Your task to perform on an android device: turn on data saver in the chrome app Image 0: 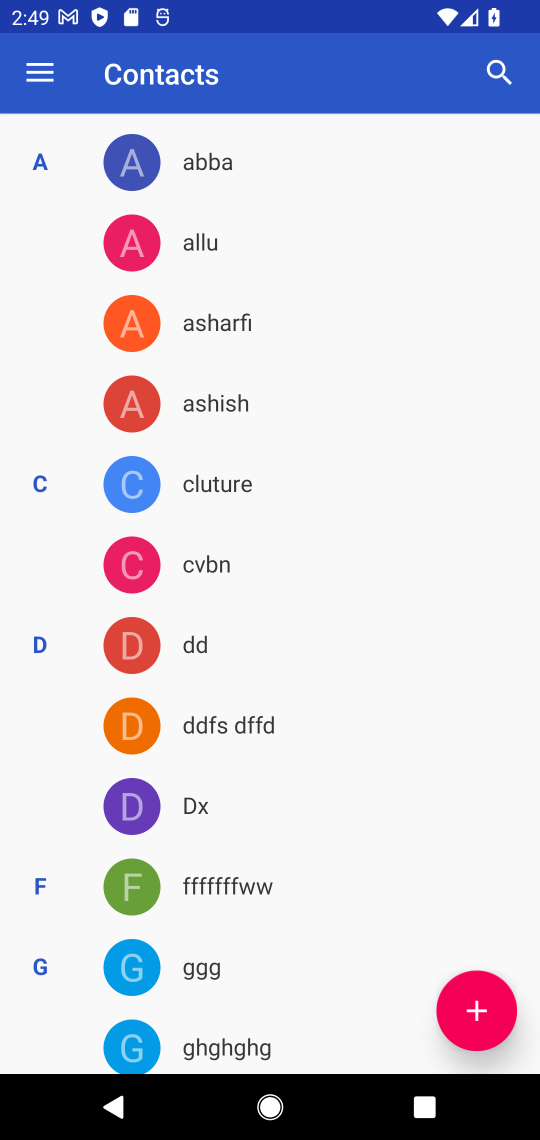
Step 0: press home button
Your task to perform on an android device: turn on data saver in the chrome app Image 1: 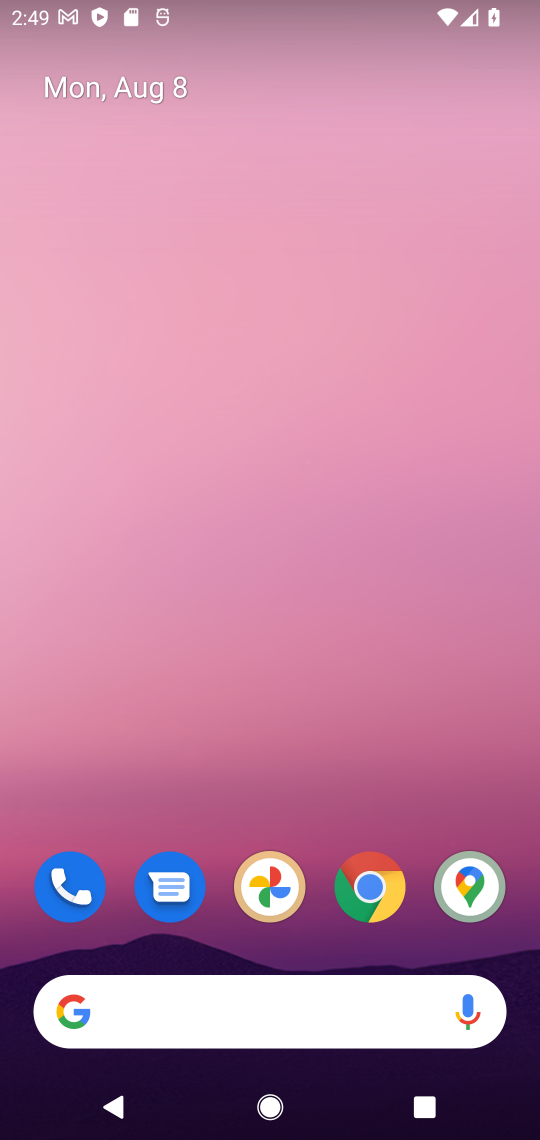
Step 1: click (380, 894)
Your task to perform on an android device: turn on data saver in the chrome app Image 2: 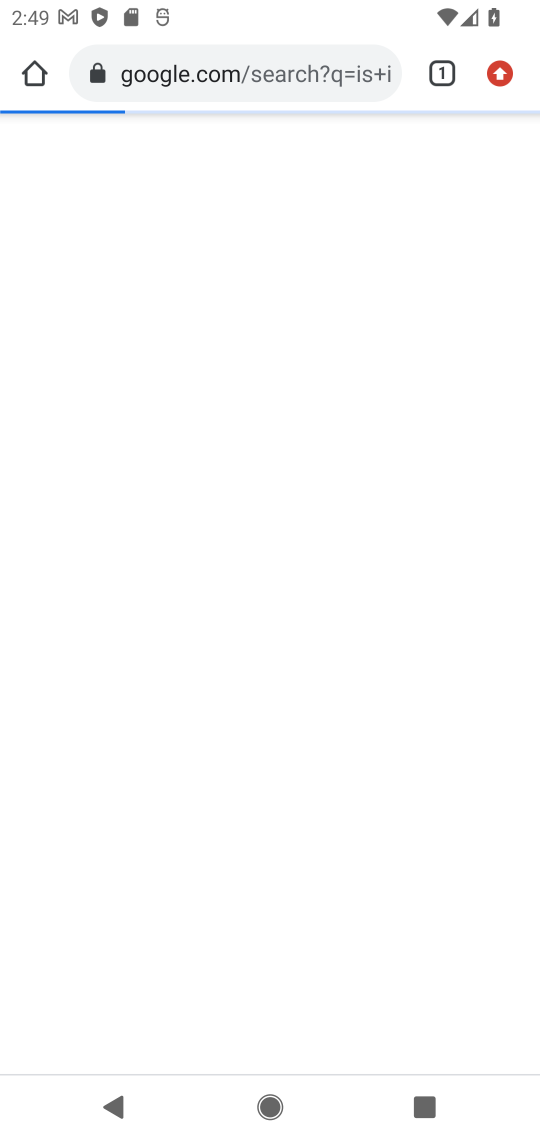
Step 2: click (496, 74)
Your task to perform on an android device: turn on data saver in the chrome app Image 3: 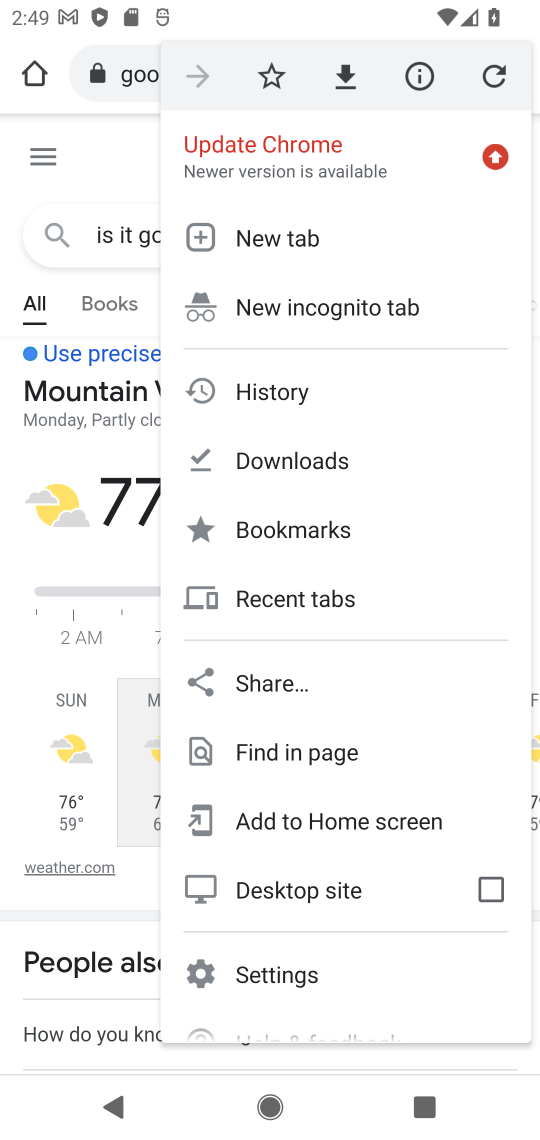
Step 3: click (292, 980)
Your task to perform on an android device: turn on data saver in the chrome app Image 4: 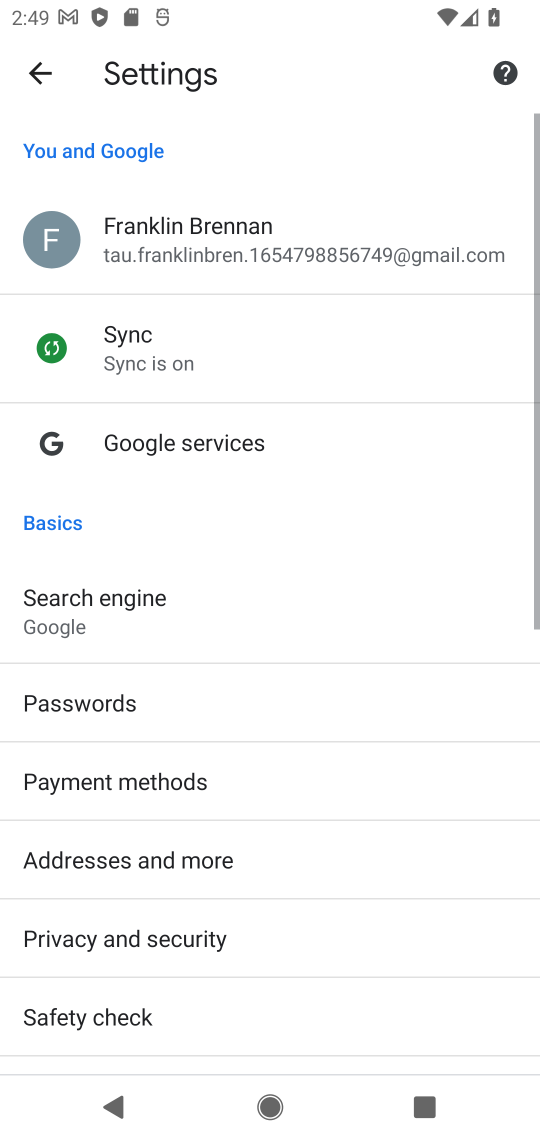
Step 4: drag from (233, 951) to (219, 423)
Your task to perform on an android device: turn on data saver in the chrome app Image 5: 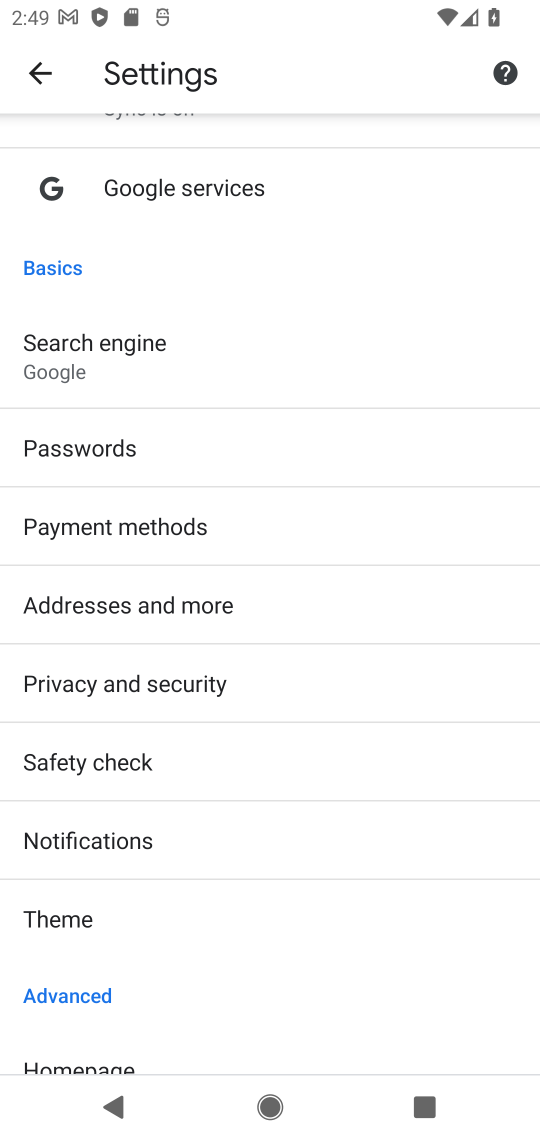
Step 5: drag from (141, 979) to (131, 554)
Your task to perform on an android device: turn on data saver in the chrome app Image 6: 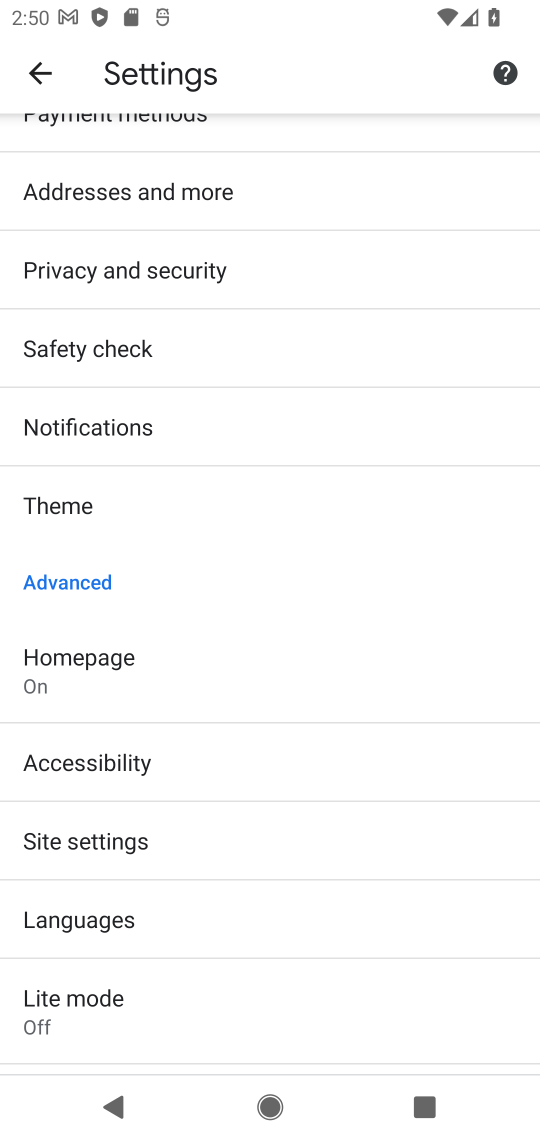
Step 6: click (79, 843)
Your task to perform on an android device: turn on data saver in the chrome app Image 7: 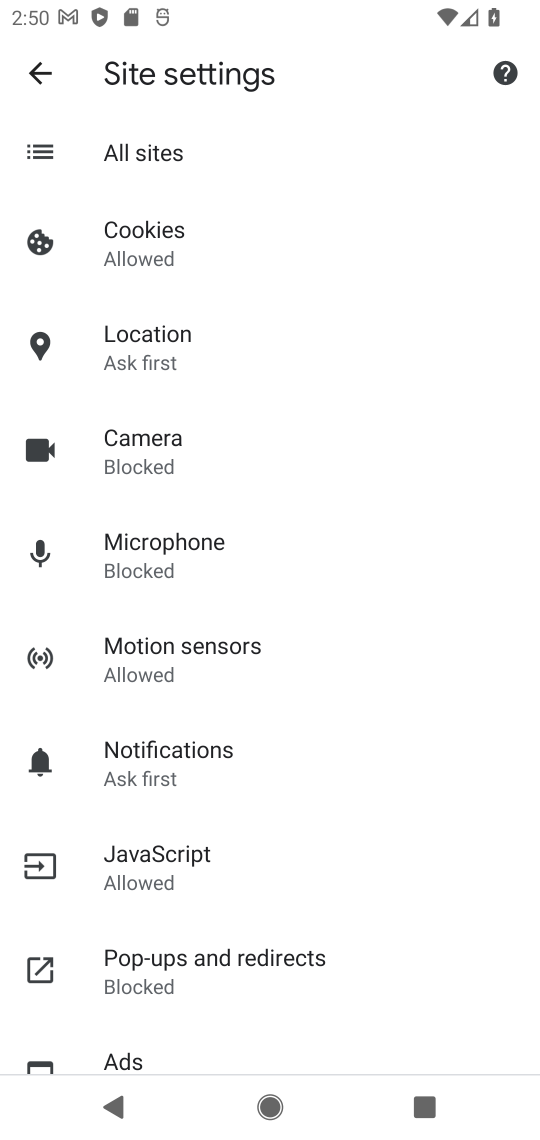
Step 7: click (47, 71)
Your task to perform on an android device: turn on data saver in the chrome app Image 8: 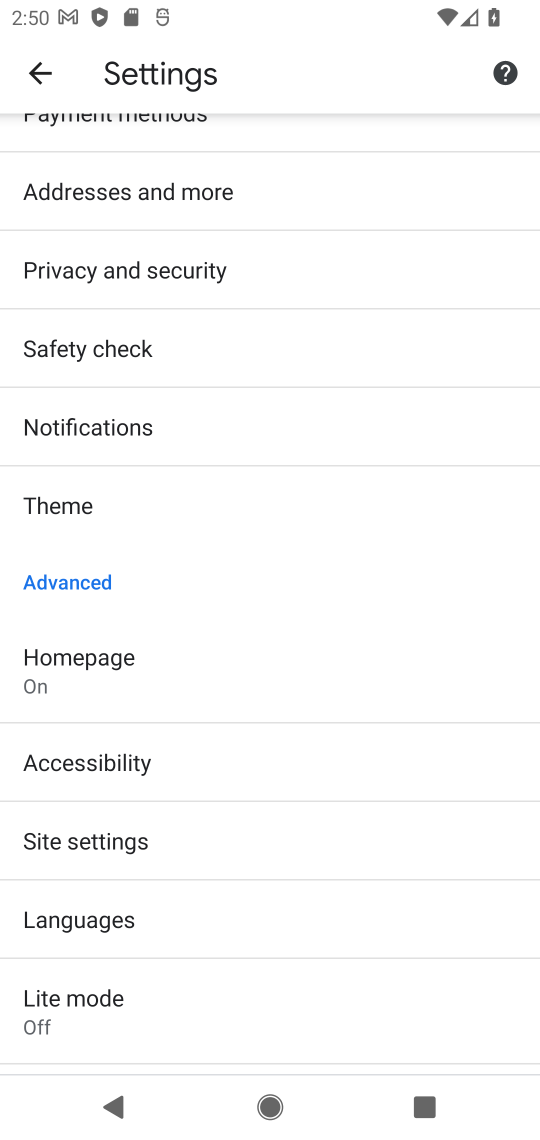
Step 8: click (79, 1008)
Your task to perform on an android device: turn on data saver in the chrome app Image 9: 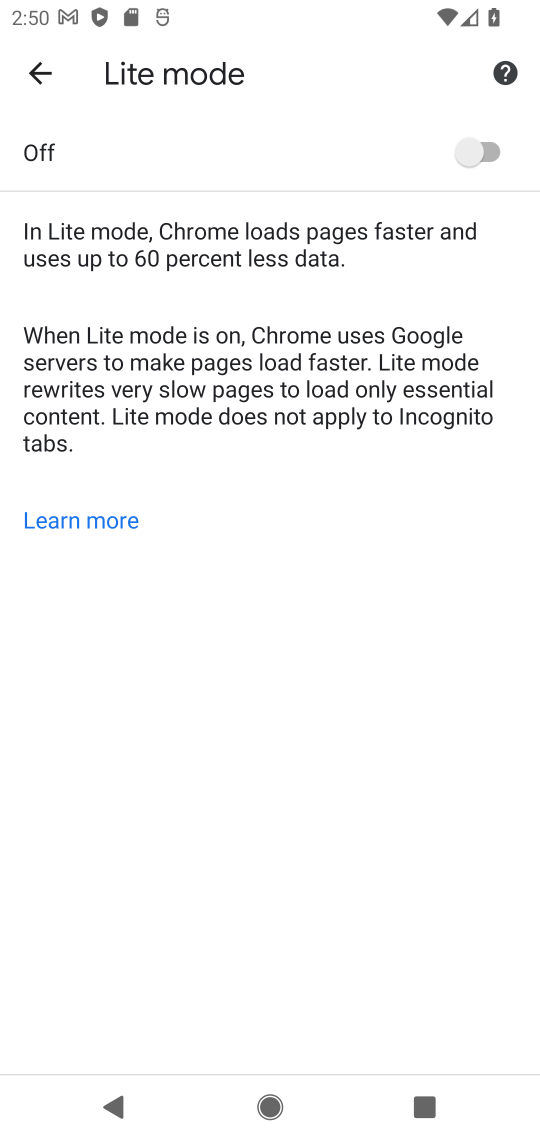
Step 9: click (464, 151)
Your task to perform on an android device: turn on data saver in the chrome app Image 10: 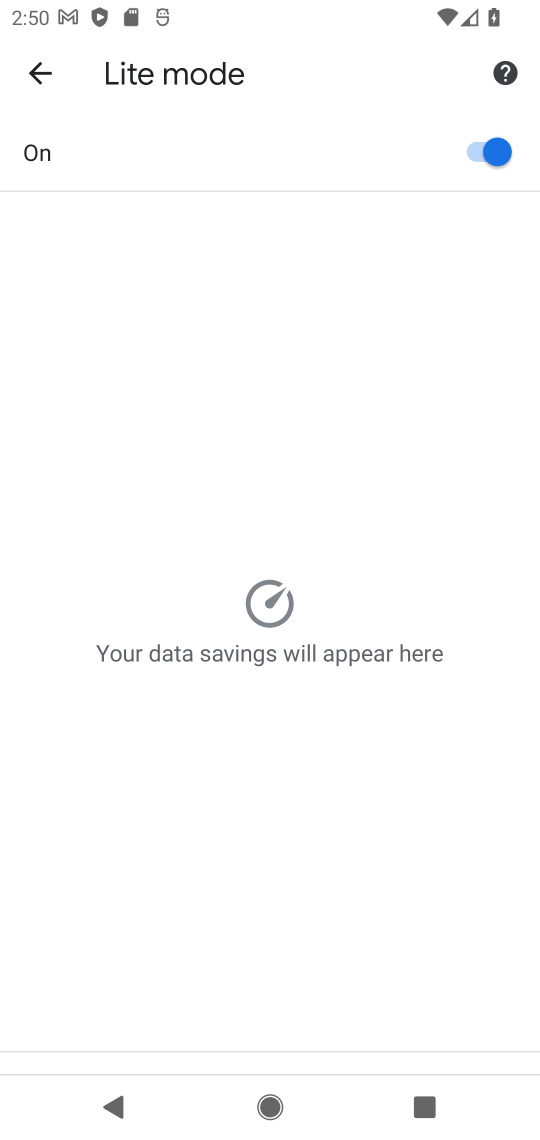
Step 10: task complete